Your task to perform on an android device: make emails show in primary in the gmail app Image 0: 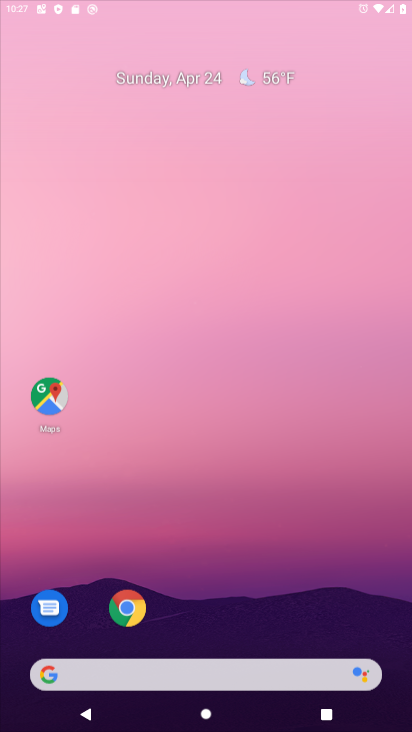
Step 0: drag from (183, 48) to (177, 9)
Your task to perform on an android device: make emails show in primary in the gmail app Image 1: 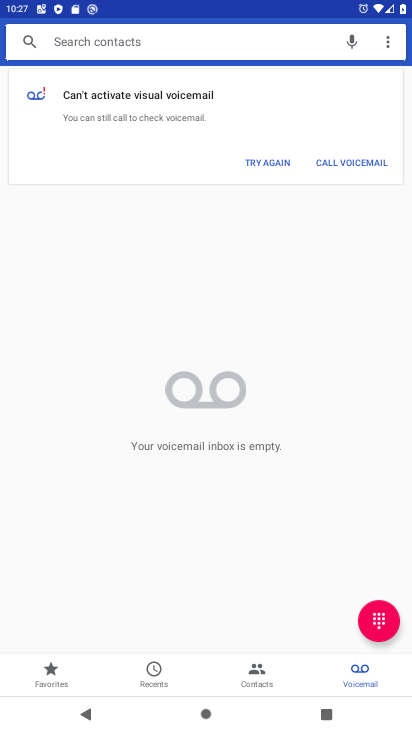
Step 1: press home button
Your task to perform on an android device: make emails show in primary in the gmail app Image 2: 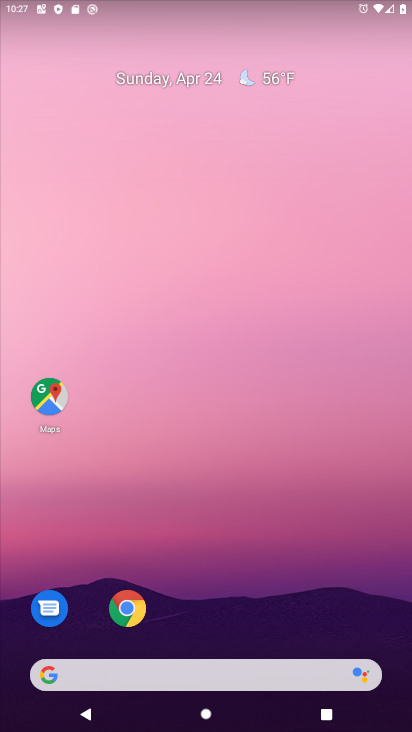
Step 2: drag from (207, 635) to (261, 26)
Your task to perform on an android device: make emails show in primary in the gmail app Image 3: 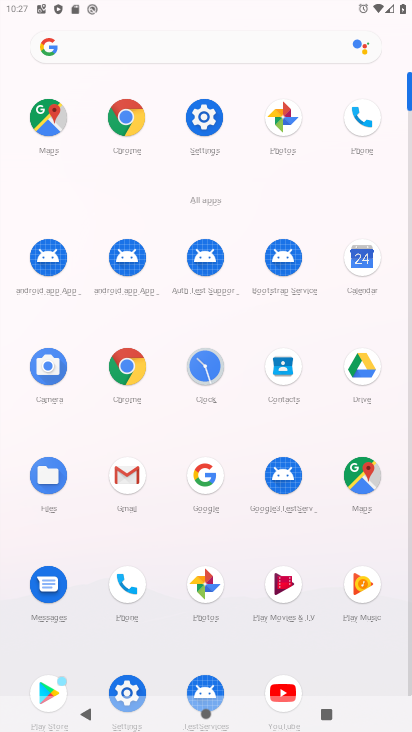
Step 3: click (125, 491)
Your task to perform on an android device: make emails show in primary in the gmail app Image 4: 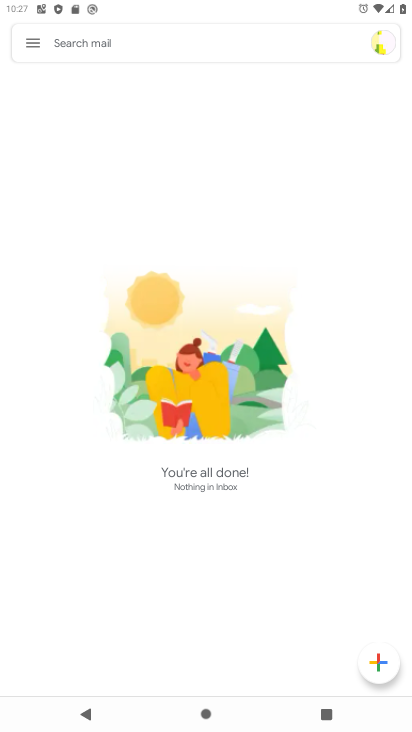
Step 4: click (30, 32)
Your task to perform on an android device: make emails show in primary in the gmail app Image 5: 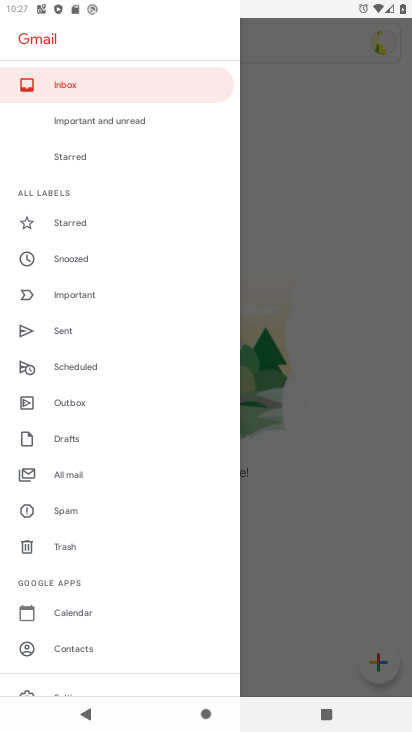
Step 5: drag from (64, 590) to (36, 190)
Your task to perform on an android device: make emails show in primary in the gmail app Image 6: 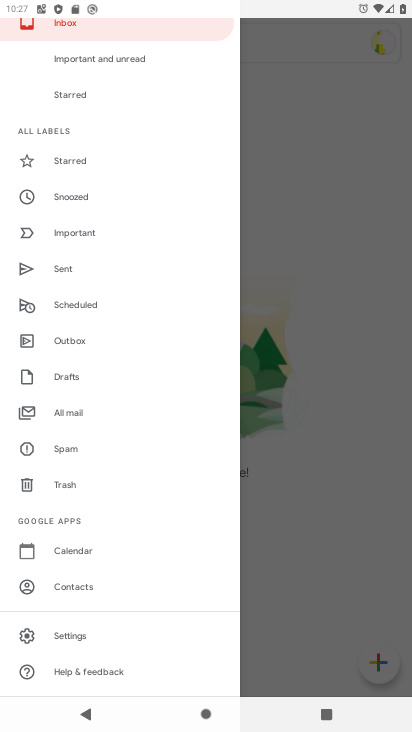
Step 6: click (51, 630)
Your task to perform on an android device: make emails show in primary in the gmail app Image 7: 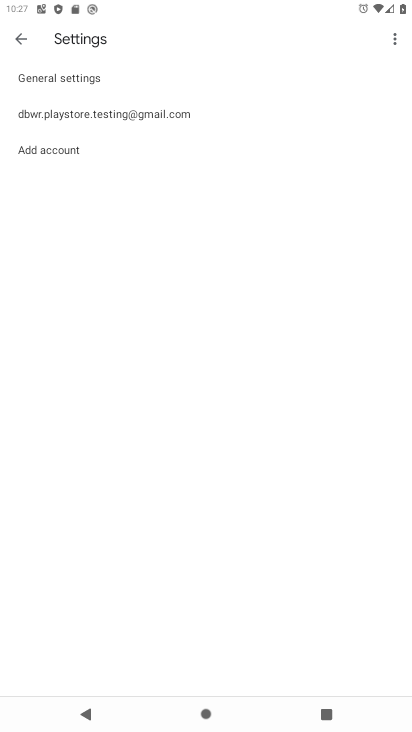
Step 7: click (52, 113)
Your task to perform on an android device: make emails show in primary in the gmail app Image 8: 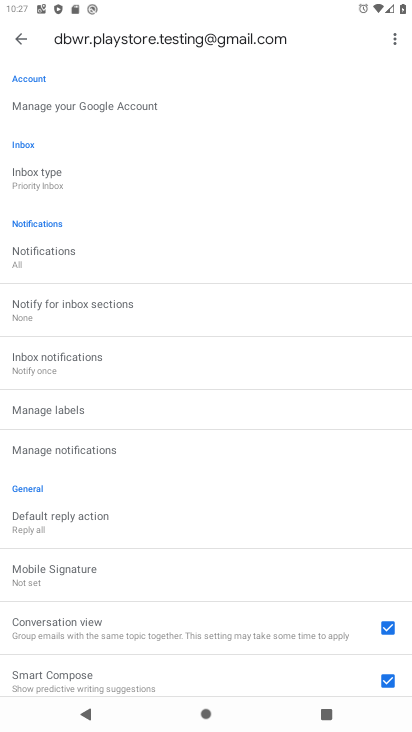
Step 8: click (38, 183)
Your task to perform on an android device: make emails show in primary in the gmail app Image 9: 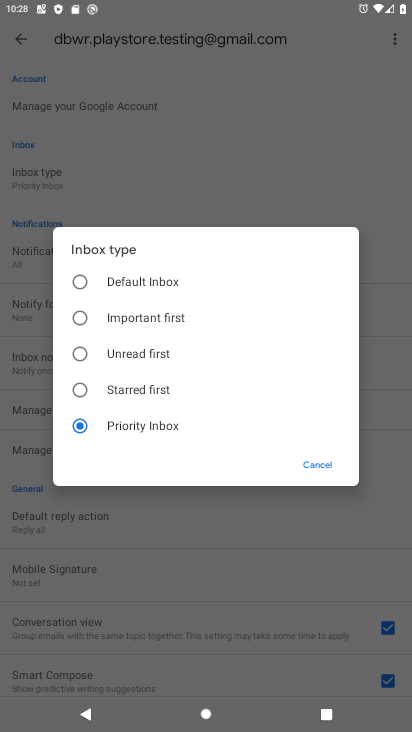
Step 9: click (92, 283)
Your task to perform on an android device: make emails show in primary in the gmail app Image 10: 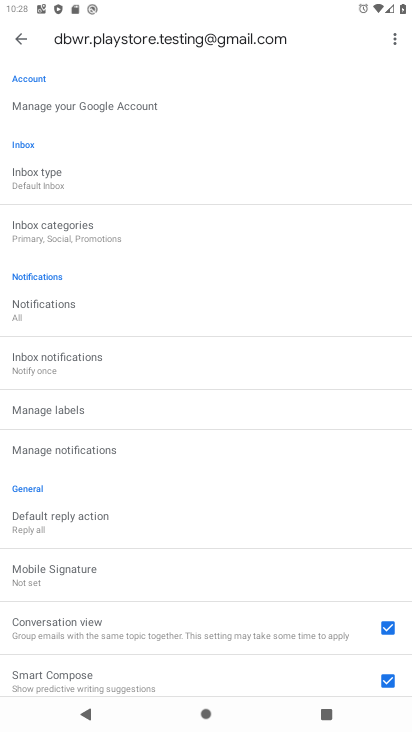
Step 10: task complete